Your task to perform on an android device: change the clock display to analog Image 0: 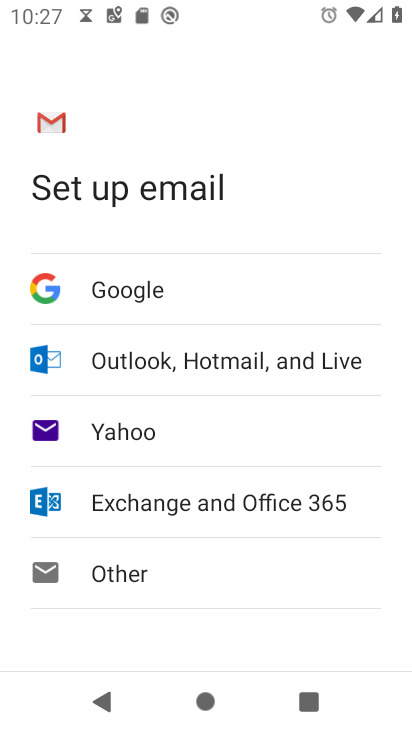
Step 0: press home button
Your task to perform on an android device: change the clock display to analog Image 1: 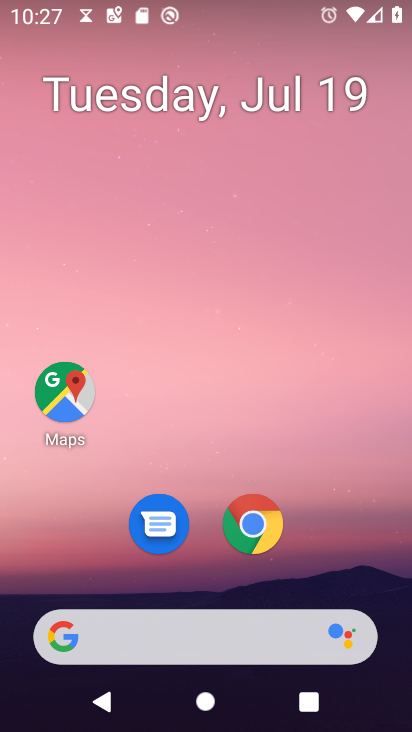
Step 1: drag from (214, 641) to (335, 174)
Your task to perform on an android device: change the clock display to analog Image 2: 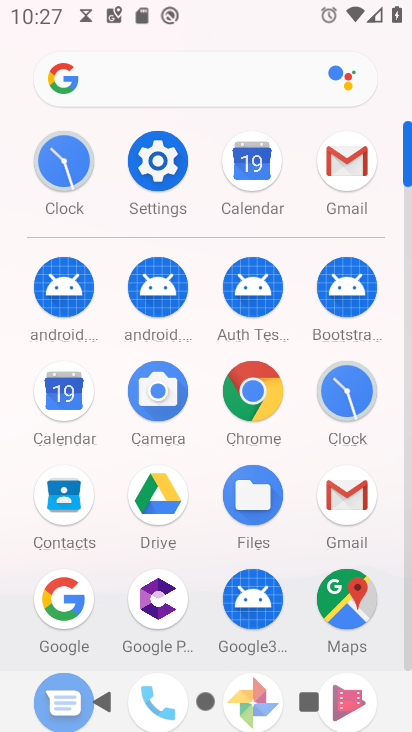
Step 2: click (352, 401)
Your task to perform on an android device: change the clock display to analog Image 3: 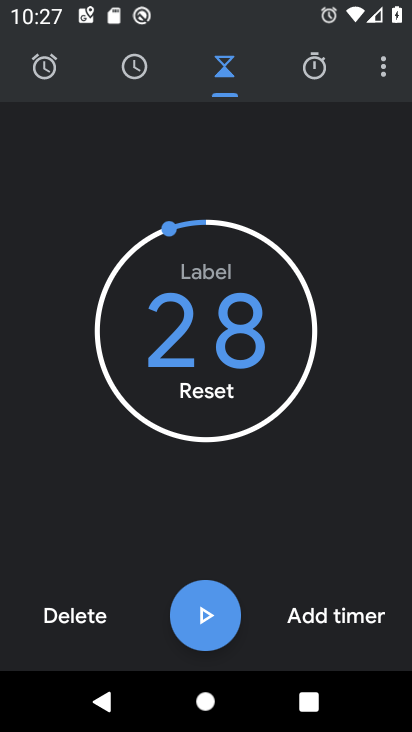
Step 3: click (386, 73)
Your task to perform on an android device: change the clock display to analog Image 4: 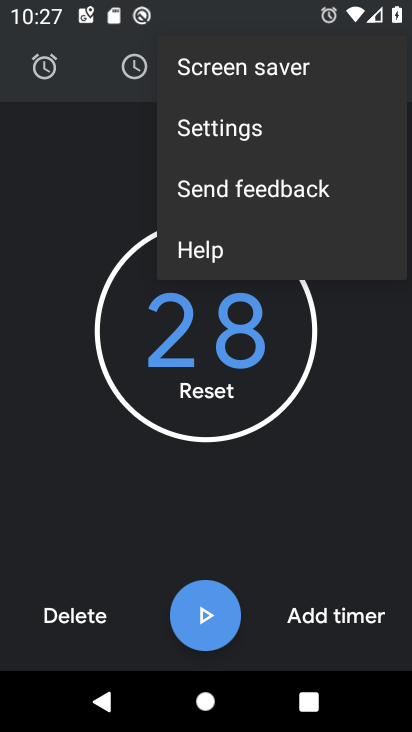
Step 4: click (260, 129)
Your task to perform on an android device: change the clock display to analog Image 5: 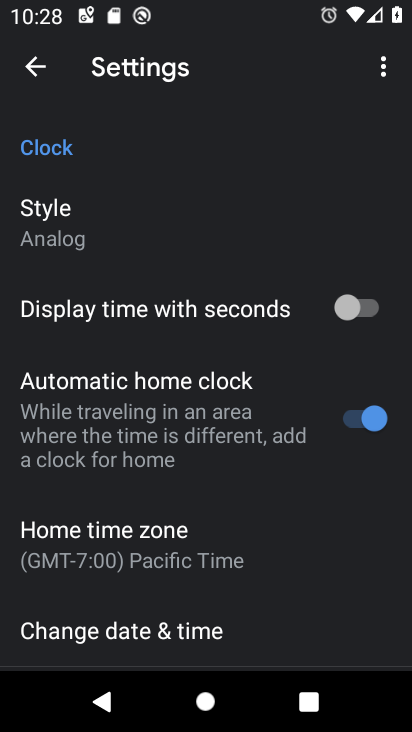
Step 5: task complete